Your task to perform on an android device: Open Youtube and go to the subscriptions tab Image 0: 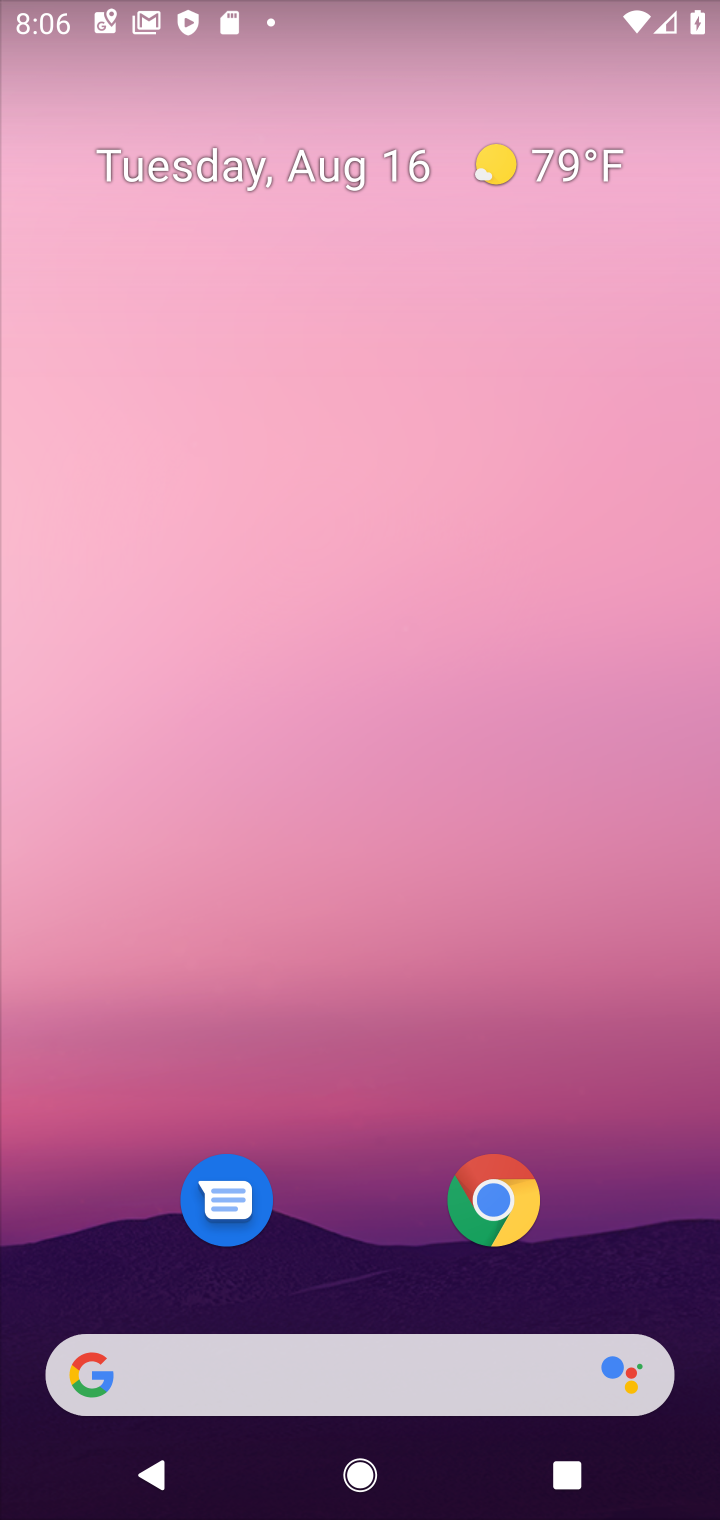
Step 0: drag from (673, 1267) to (586, 451)
Your task to perform on an android device: Open Youtube and go to the subscriptions tab Image 1: 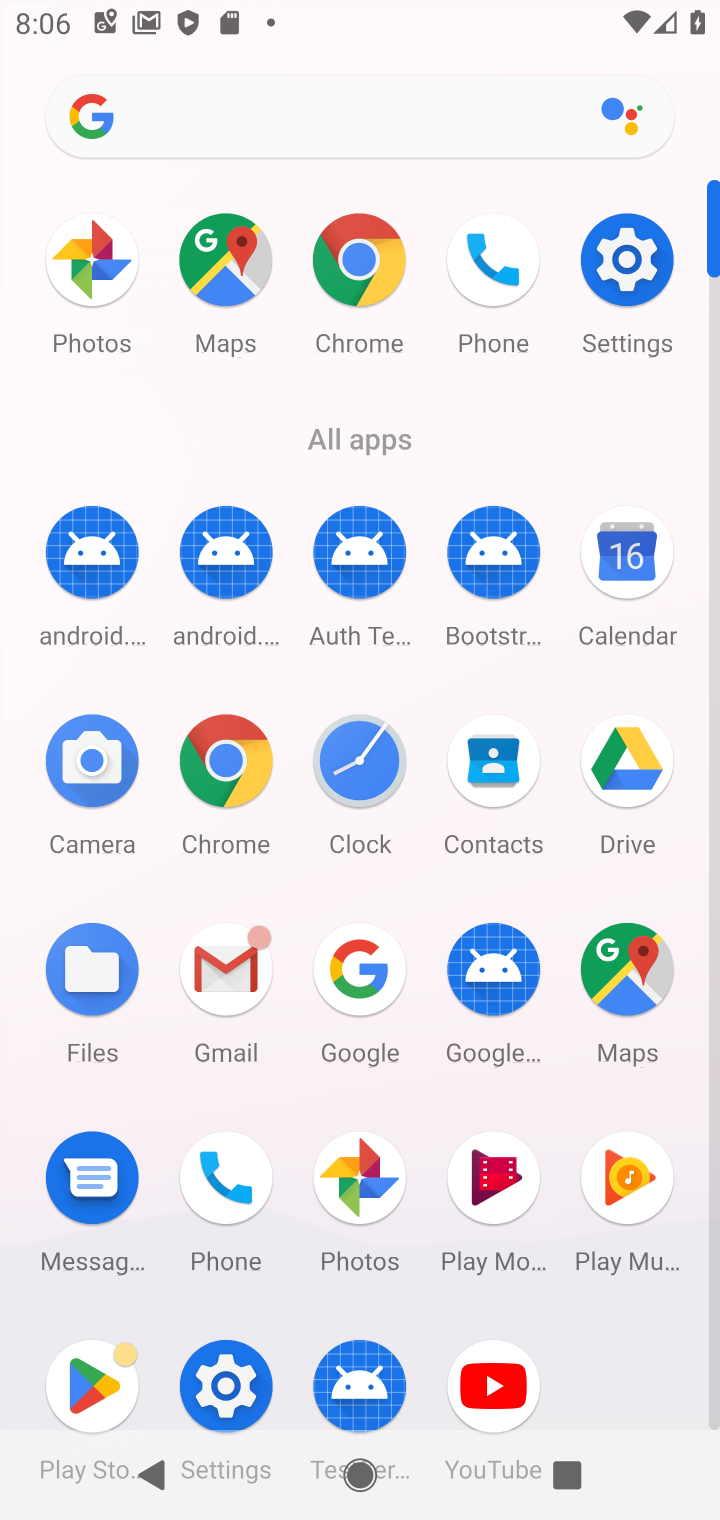
Step 1: click (483, 1394)
Your task to perform on an android device: Open Youtube and go to the subscriptions tab Image 2: 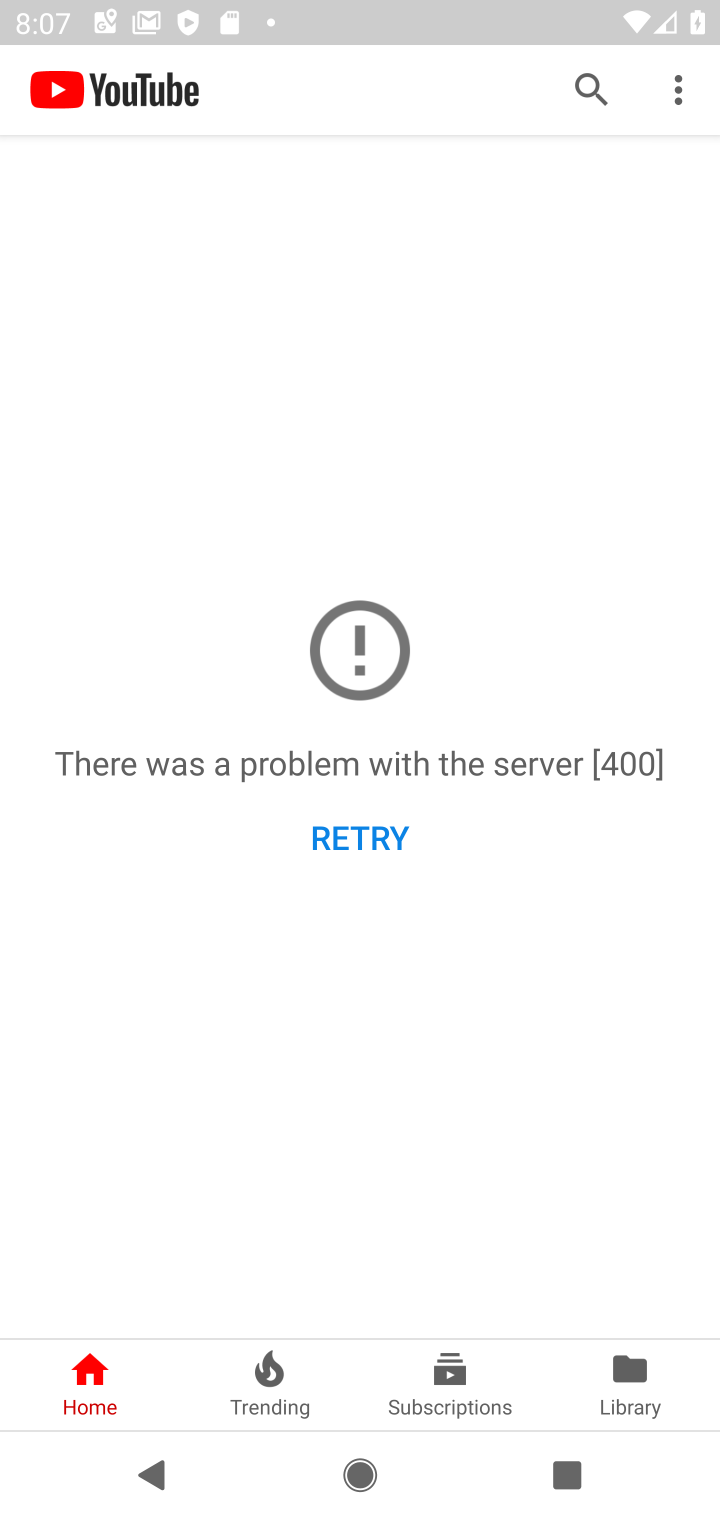
Step 2: click (451, 1373)
Your task to perform on an android device: Open Youtube and go to the subscriptions tab Image 3: 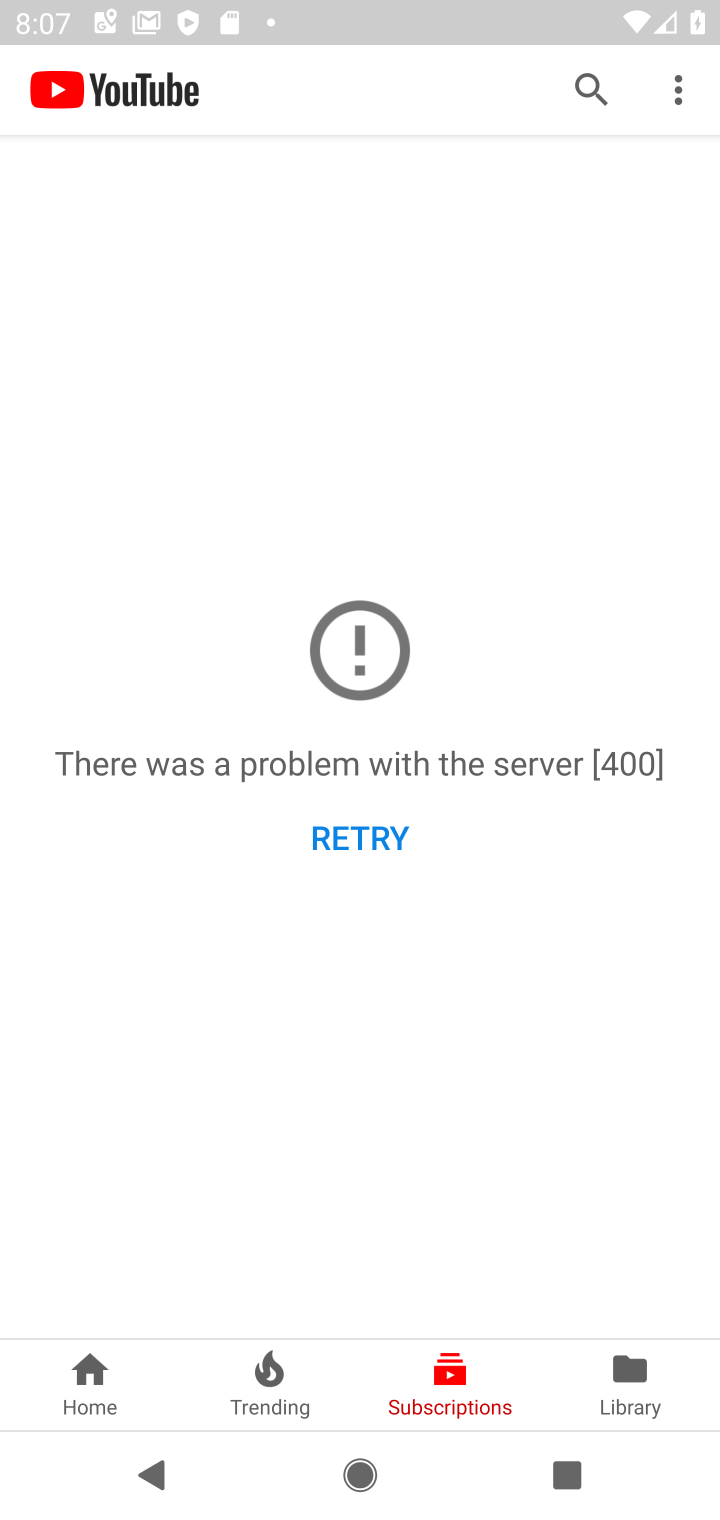
Step 3: click (380, 832)
Your task to perform on an android device: Open Youtube and go to the subscriptions tab Image 4: 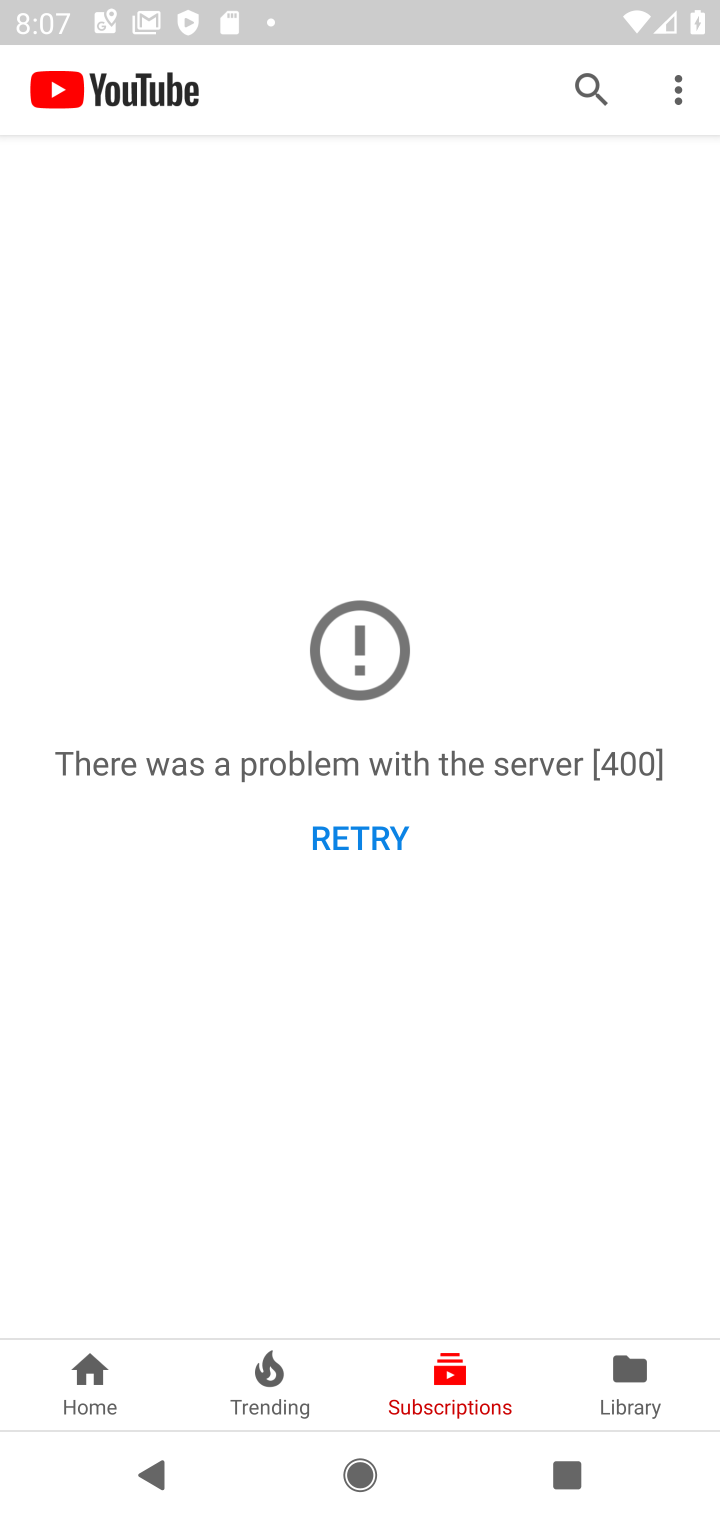
Step 4: task complete